Your task to perform on an android device: toggle priority inbox in the gmail app Image 0: 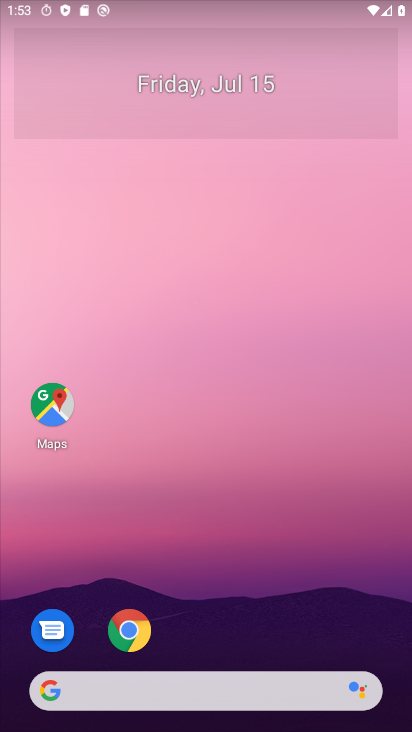
Step 0: drag from (224, 622) to (182, 176)
Your task to perform on an android device: toggle priority inbox in the gmail app Image 1: 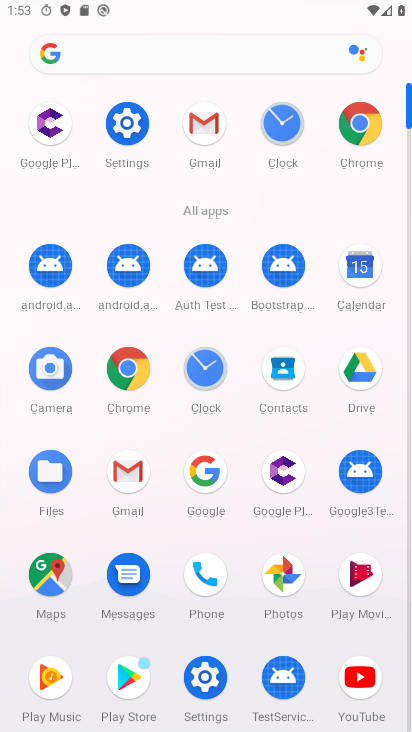
Step 1: click (197, 132)
Your task to perform on an android device: toggle priority inbox in the gmail app Image 2: 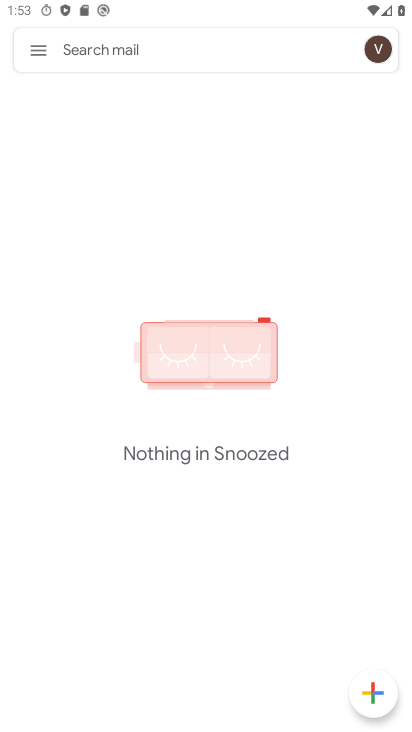
Step 2: click (26, 47)
Your task to perform on an android device: toggle priority inbox in the gmail app Image 3: 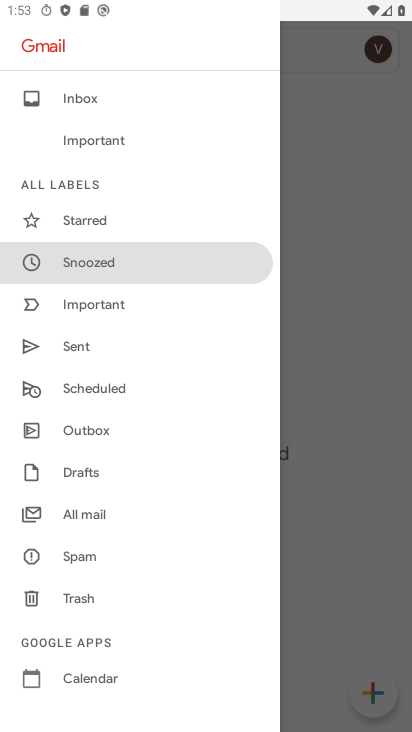
Step 3: drag from (140, 638) to (133, 331)
Your task to perform on an android device: toggle priority inbox in the gmail app Image 4: 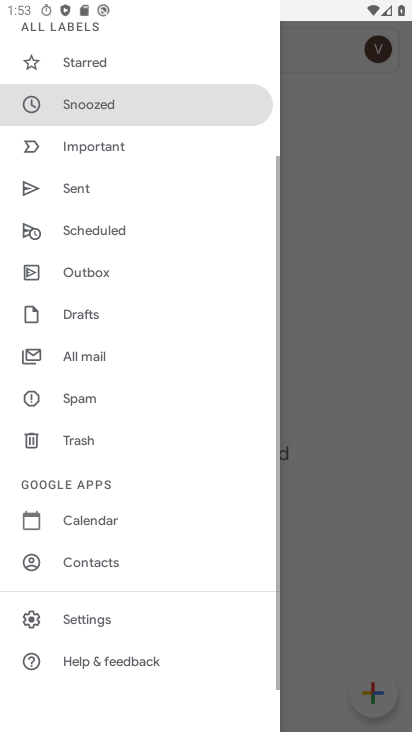
Step 4: click (75, 626)
Your task to perform on an android device: toggle priority inbox in the gmail app Image 5: 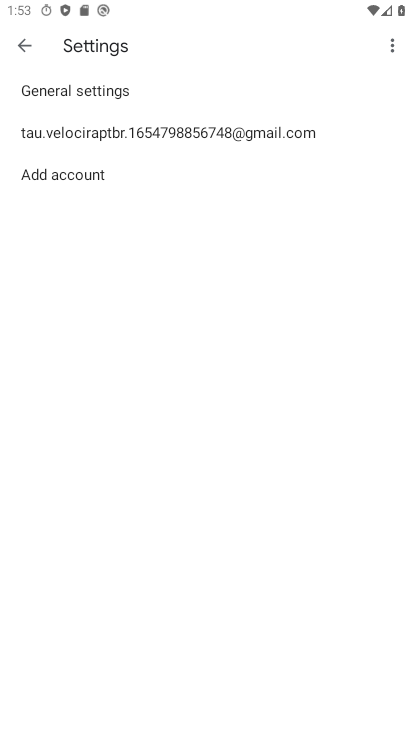
Step 5: click (105, 124)
Your task to perform on an android device: toggle priority inbox in the gmail app Image 6: 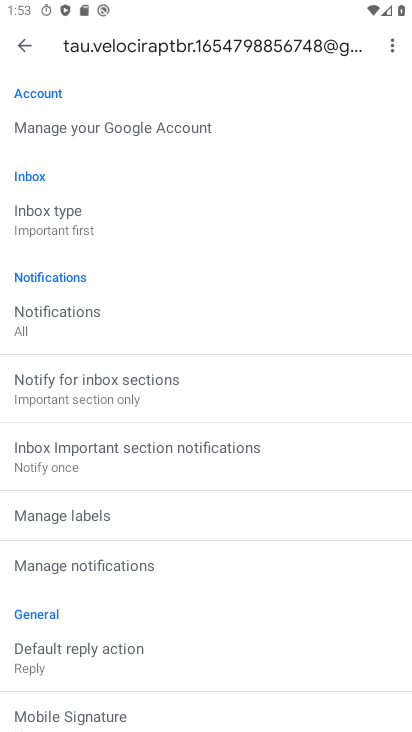
Step 6: click (115, 225)
Your task to perform on an android device: toggle priority inbox in the gmail app Image 7: 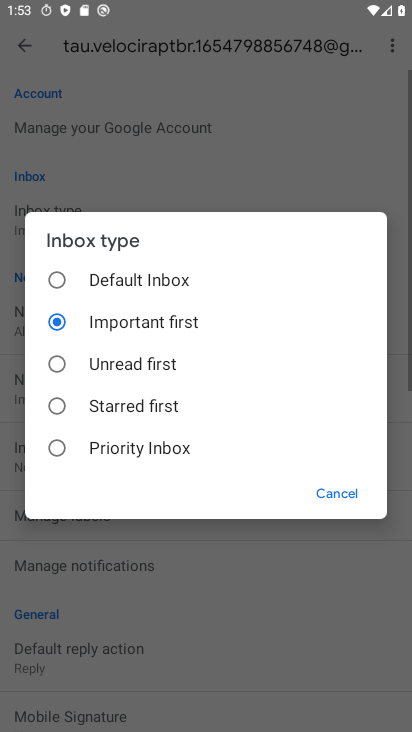
Step 7: click (95, 444)
Your task to perform on an android device: toggle priority inbox in the gmail app Image 8: 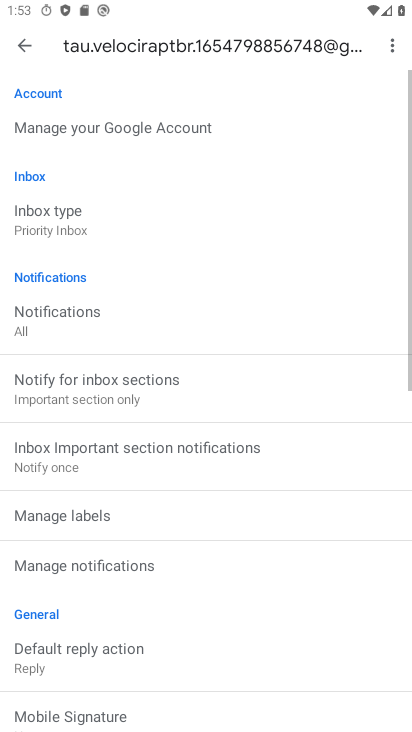
Step 8: task complete